Your task to perform on an android device: Open battery settings Image 0: 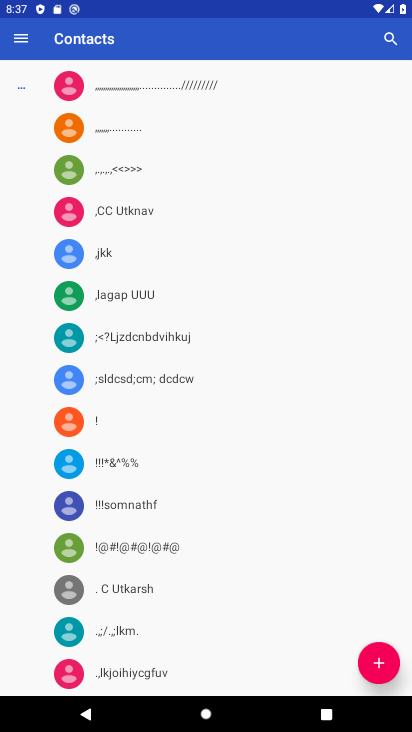
Step 0: press home button
Your task to perform on an android device: Open battery settings Image 1: 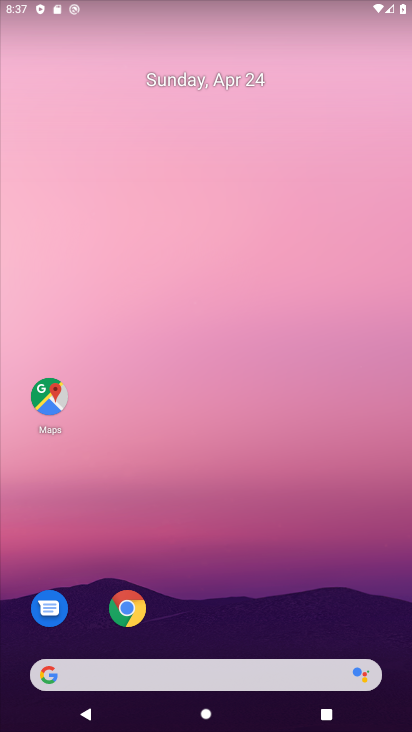
Step 1: drag from (234, 536) to (209, 145)
Your task to perform on an android device: Open battery settings Image 2: 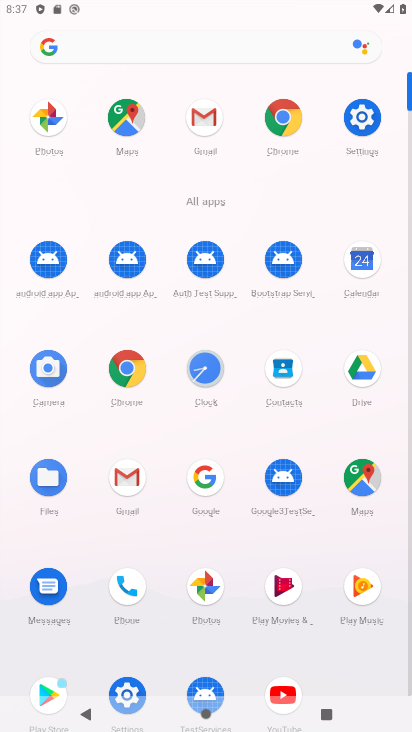
Step 2: click (358, 131)
Your task to perform on an android device: Open battery settings Image 3: 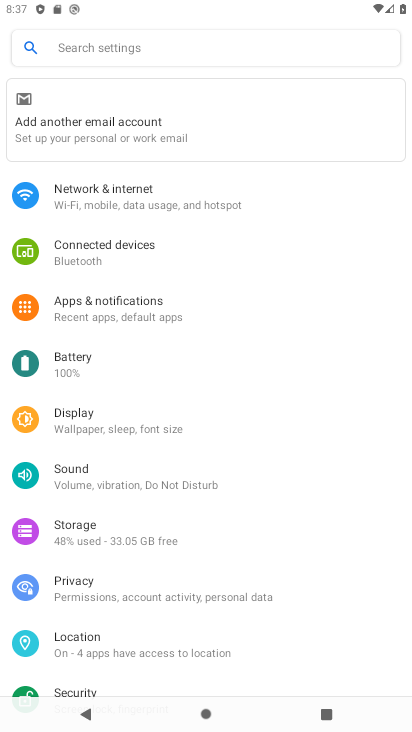
Step 3: click (148, 360)
Your task to perform on an android device: Open battery settings Image 4: 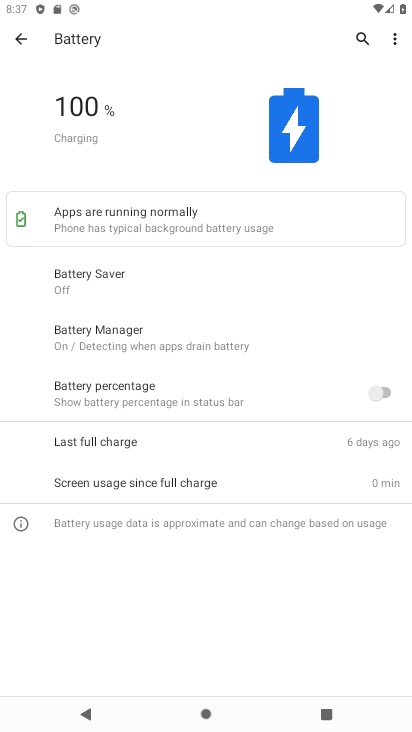
Step 4: task complete